Your task to perform on an android device: Open Amazon Image 0: 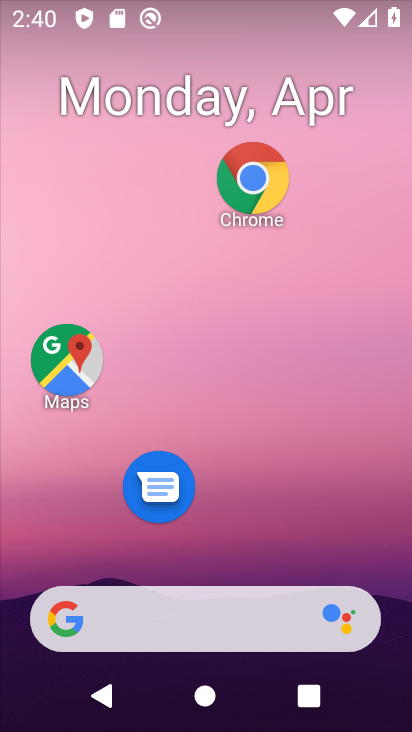
Step 0: click (270, 189)
Your task to perform on an android device: Open Amazon Image 1: 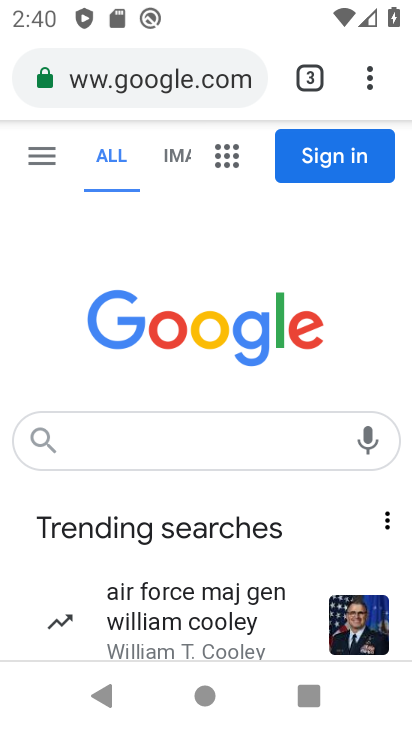
Step 1: click (371, 77)
Your task to perform on an android device: Open Amazon Image 2: 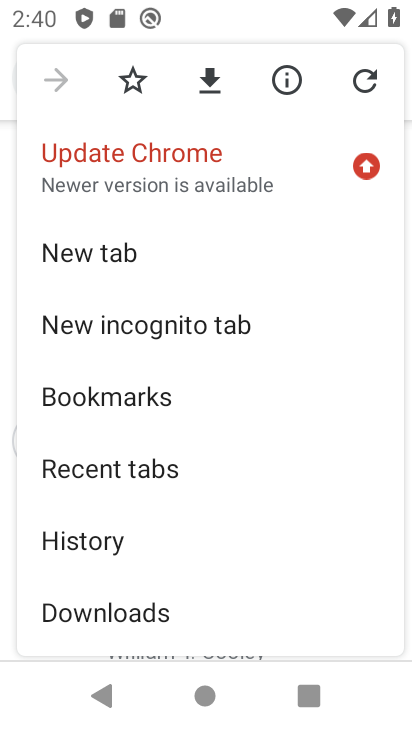
Step 2: click (80, 261)
Your task to perform on an android device: Open Amazon Image 3: 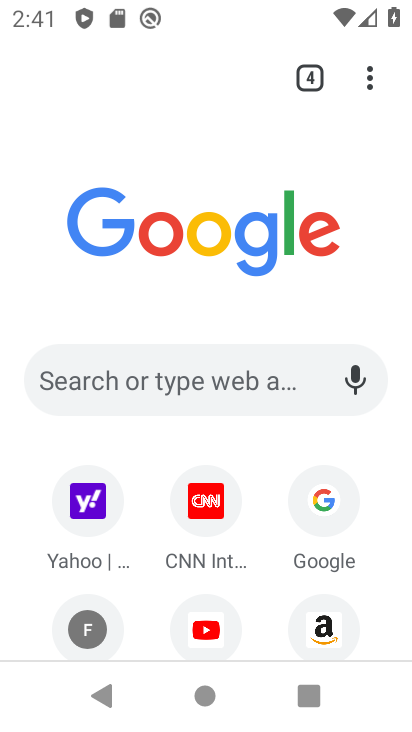
Step 3: click (336, 622)
Your task to perform on an android device: Open Amazon Image 4: 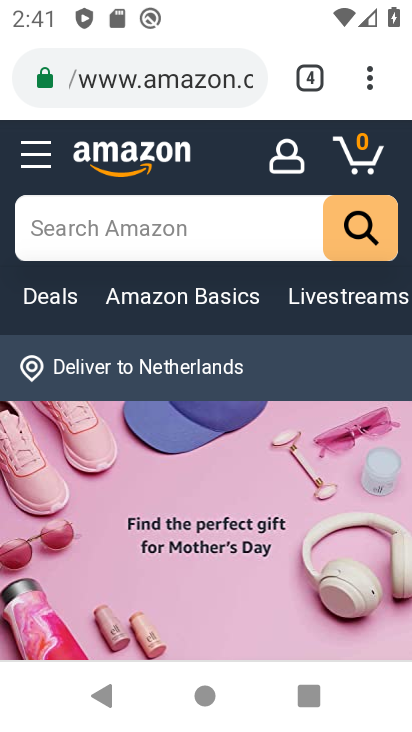
Step 4: task complete